Your task to perform on an android device: change keyboard looks Image 0: 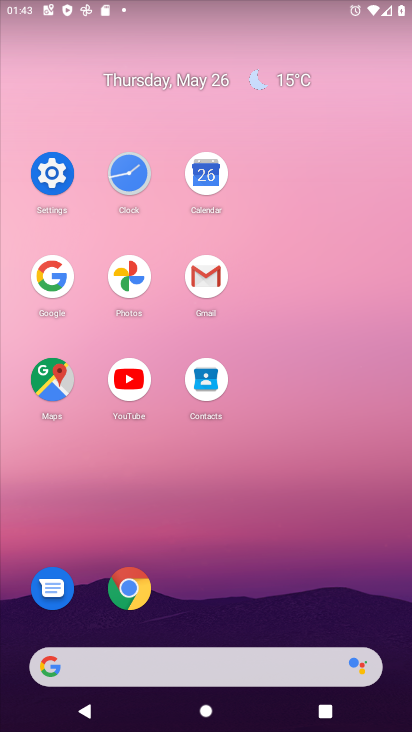
Step 0: click (63, 182)
Your task to perform on an android device: change keyboard looks Image 1: 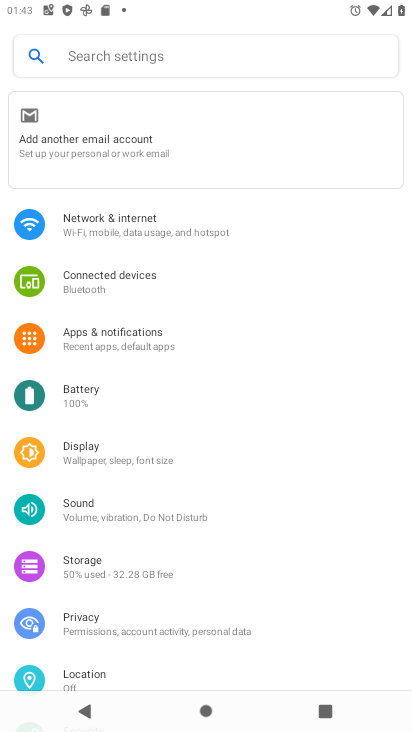
Step 1: drag from (185, 544) to (191, 170)
Your task to perform on an android device: change keyboard looks Image 2: 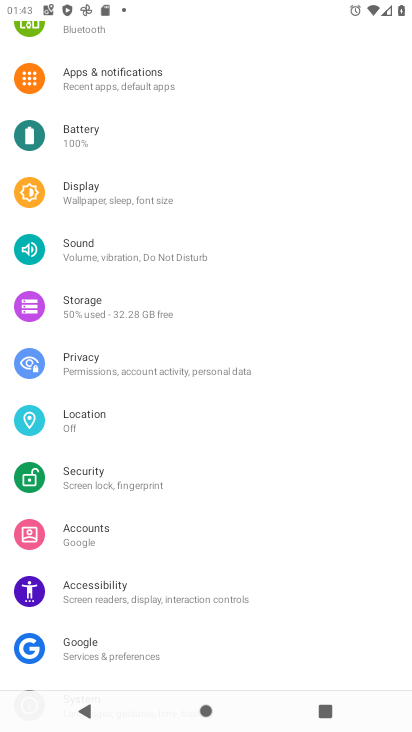
Step 2: drag from (174, 603) to (209, 324)
Your task to perform on an android device: change keyboard looks Image 3: 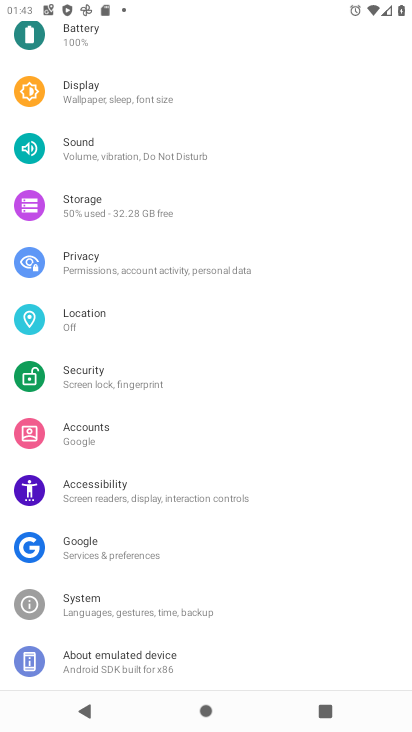
Step 3: click (235, 605)
Your task to perform on an android device: change keyboard looks Image 4: 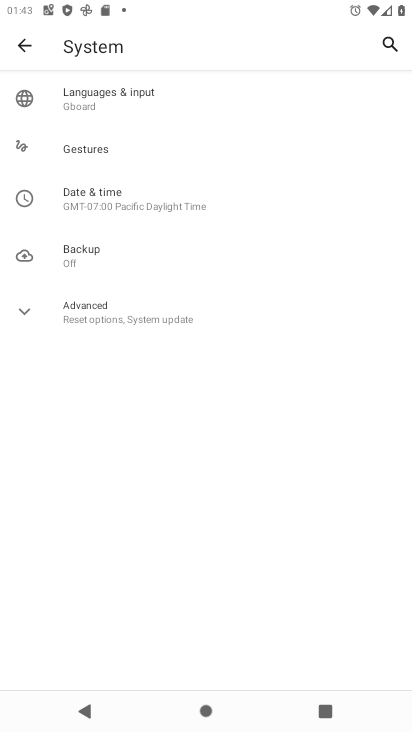
Step 4: click (155, 108)
Your task to perform on an android device: change keyboard looks Image 5: 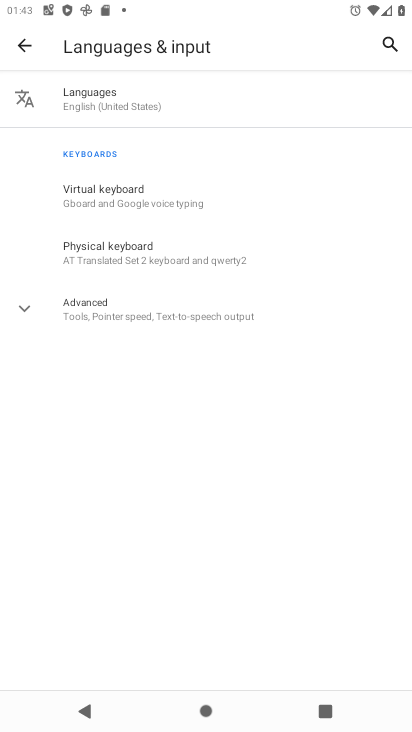
Step 5: click (169, 208)
Your task to perform on an android device: change keyboard looks Image 6: 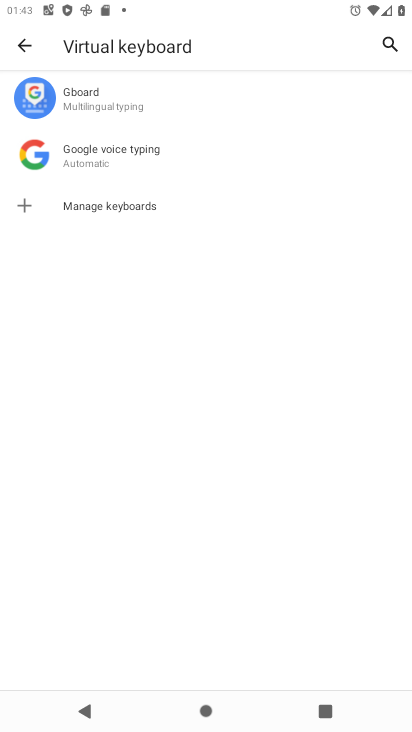
Step 6: click (119, 106)
Your task to perform on an android device: change keyboard looks Image 7: 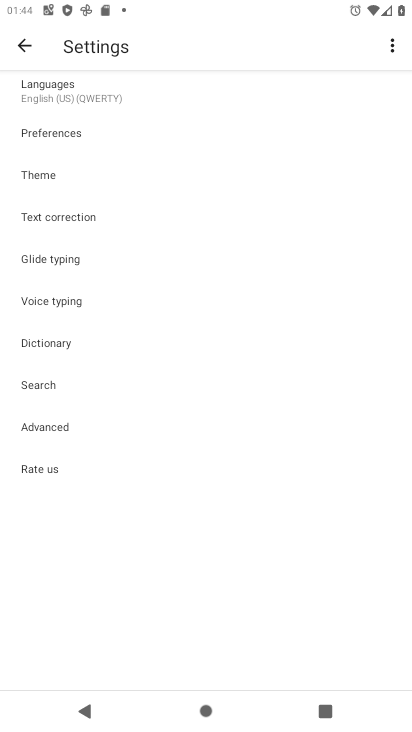
Step 7: click (133, 182)
Your task to perform on an android device: change keyboard looks Image 8: 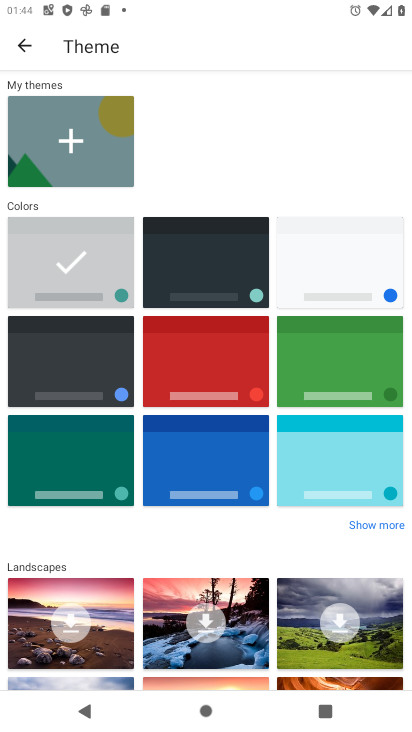
Step 8: click (253, 295)
Your task to perform on an android device: change keyboard looks Image 9: 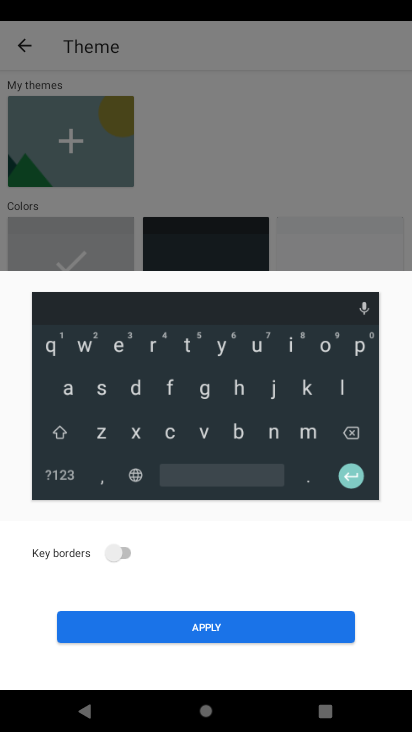
Step 9: click (120, 564)
Your task to perform on an android device: change keyboard looks Image 10: 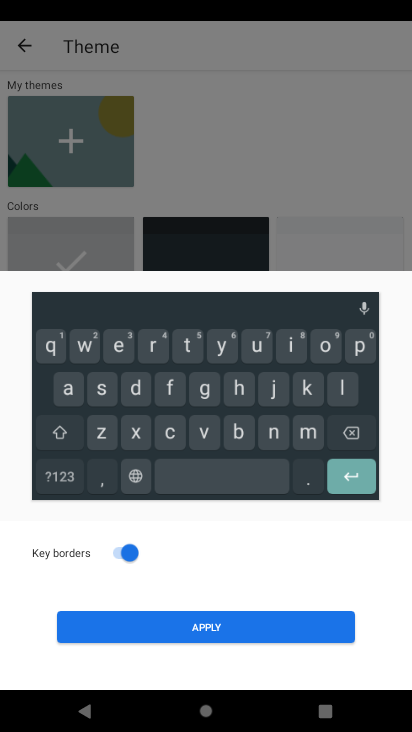
Step 10: click (266, 628)
Your task to perform on an android device: change keyboard looks Image 11: 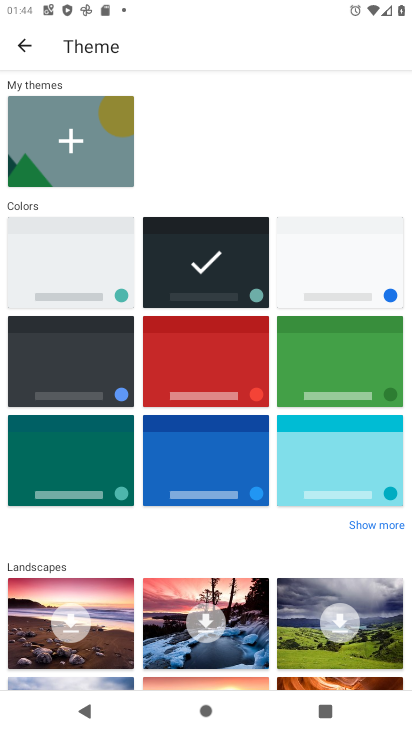
Step 11: task complete